Your task to perform on an android device: create a new album in the google photos Image 0: 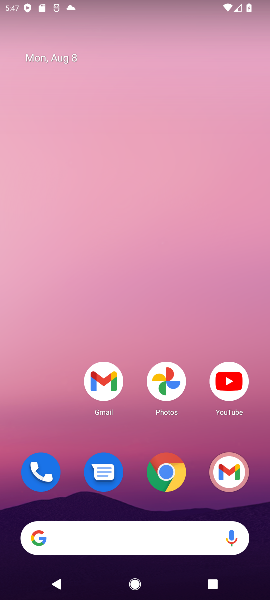
Step 0: press home button
Your task to perform on an android device: create a new album in the google photos Image 1: 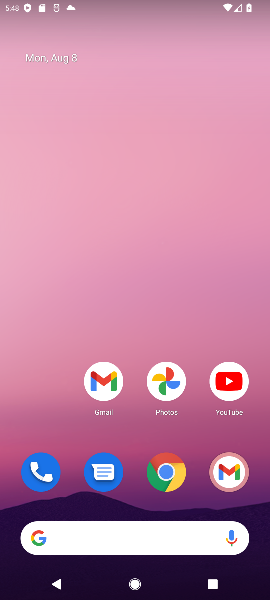
Step 1: click (173, 385)
Your task to perform on an android device: create a new album in the google photos Image 2: 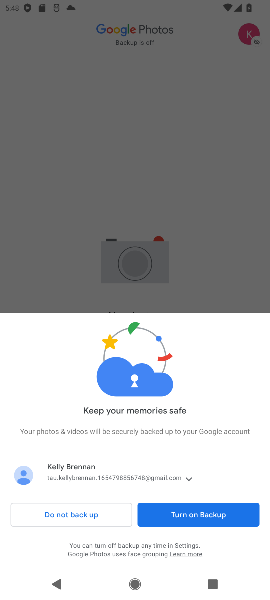
Step 2: click (60, 517)
Your task to perform on an android device: create a new album in the google photos Image 3: 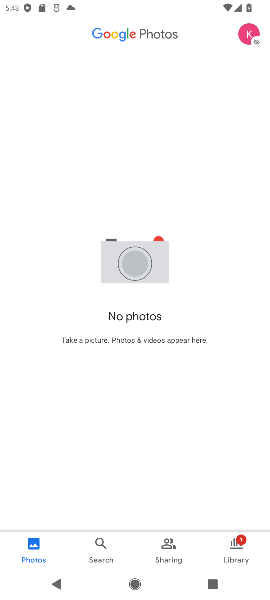
Step 3: task complete